Your task to perform on an android device: Show me popular videos on Youtube Image 0: 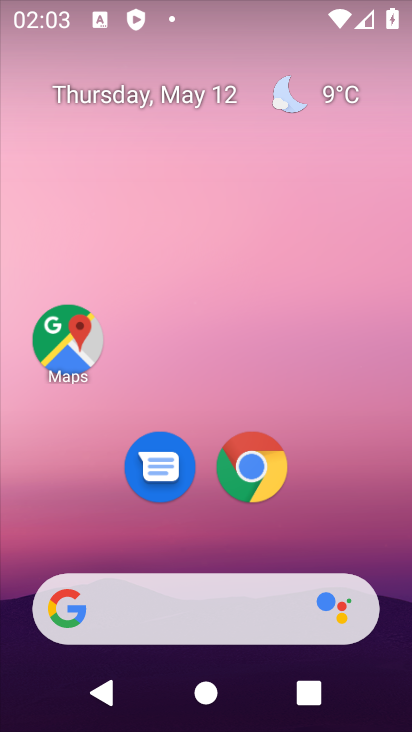
Step 0: drag from (321, 537) to (334, 188)
Your task to perform on an android device: Show me popular videos on Youtube Image 1: 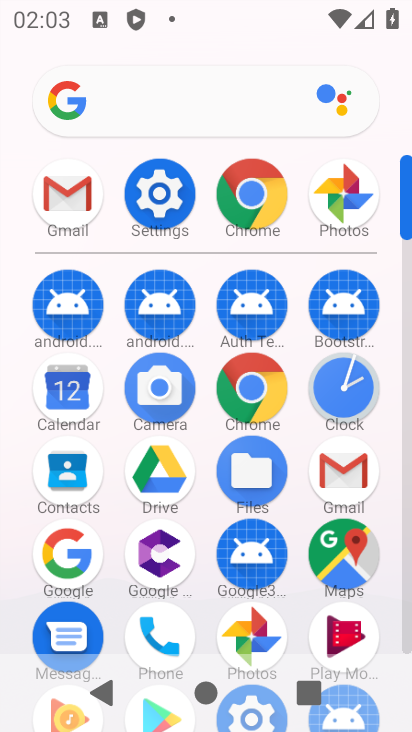
Step 1: drag from (283, 579) to (309, 236)
Your task to perform on an android device: Show me popular videos on Youtube Image 2: 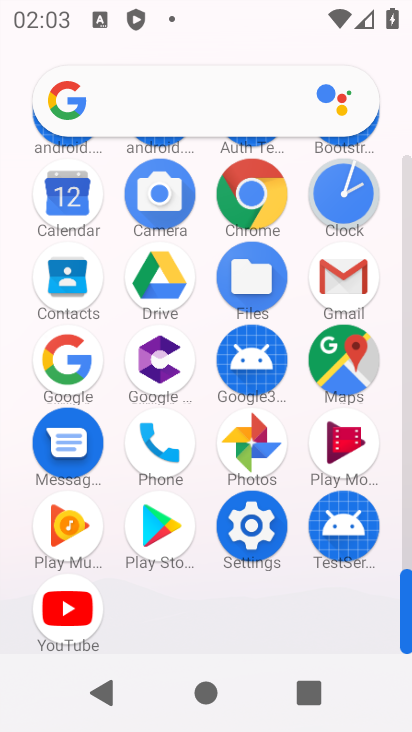
Step 2: click (68, 605)
Your task to perform on an android device: Show me popular videos on Youtube Image 3: 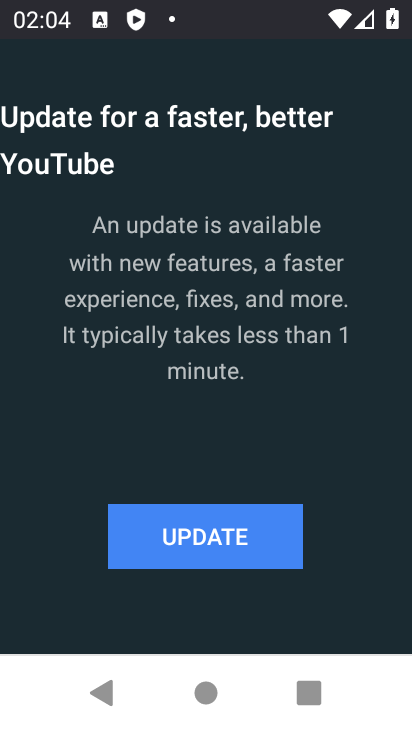
Step 3: task complete